Your task to perform on an android device: Open battery settings Image 0: 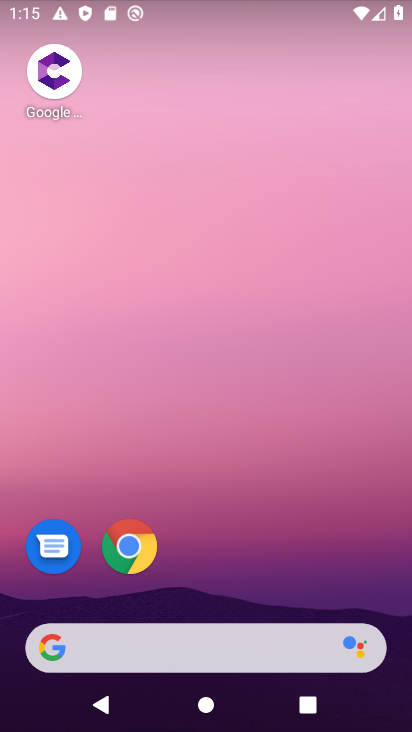
Step 0: drag from (157, 601) to (52, 152)
Your task to perform on an android device: Open battery settings Image 1: 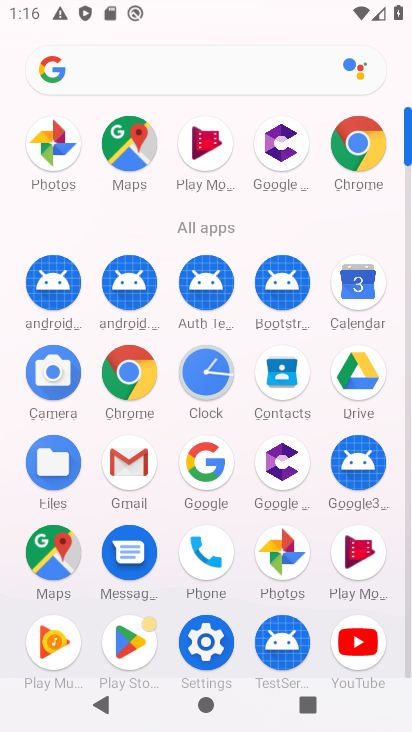
Step 1: click (212, 664)
Your task to perform on an android device: Open battery settings Image 2: 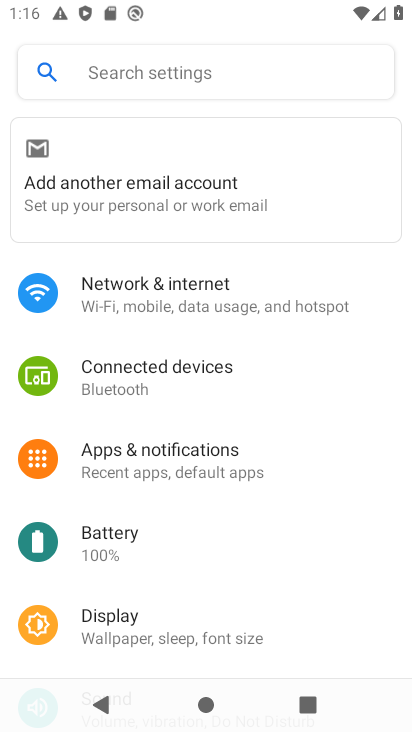
Step 2: click (121, 552)
Your task to perform on an android device: Open battery settings Image 3: 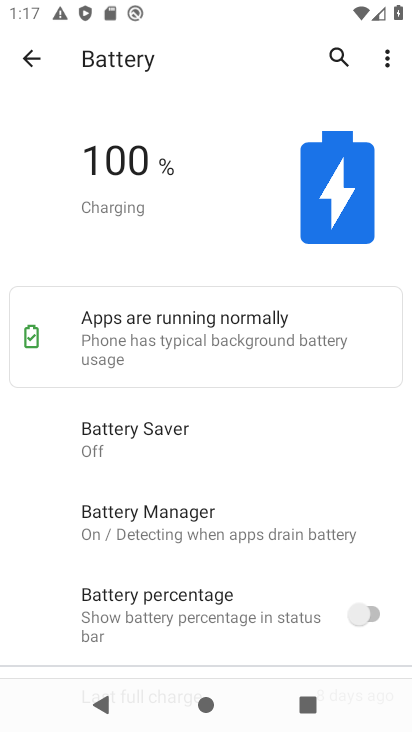
Step 3: task complete